Your task to perform on an android device: Show me popular videos on Youtube Image 0: 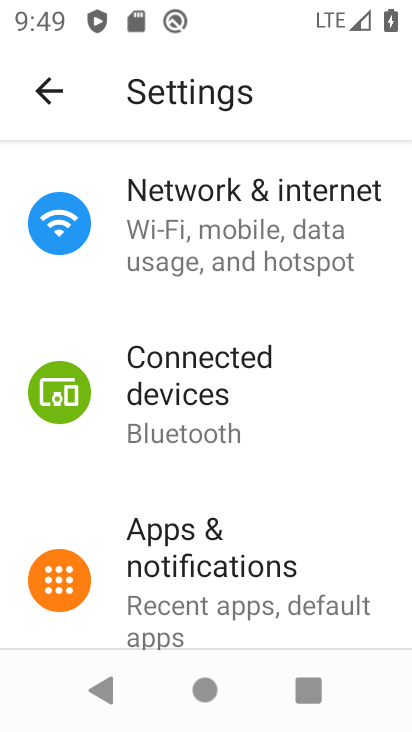
Step 0: press home button
Your task to perform on an android device: Show me popular videos on Youtube Image 1: 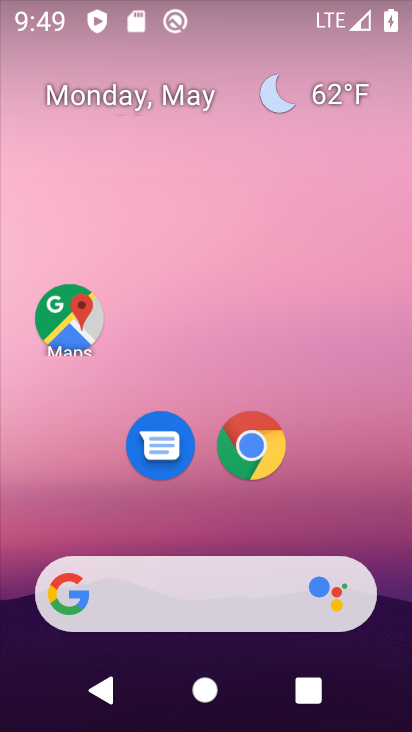
Step 1: drag from (383, 606) to (209, 22)
Your task to perform on an android device: Show me popular videos on Youtube Image 2: 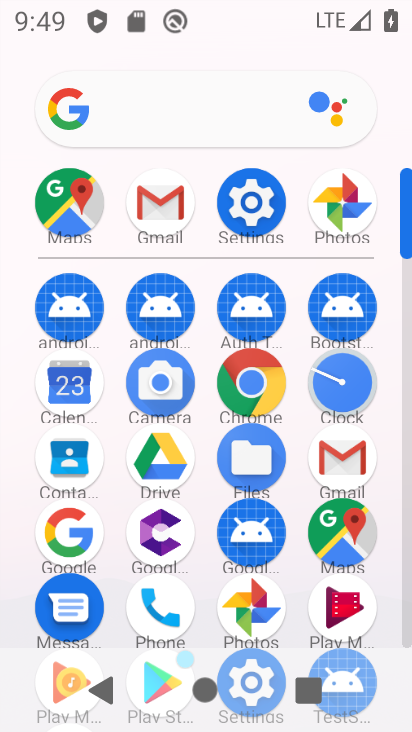
Step 2: drag from (287, 602) to (278, 227)
Your task to perform on an android device: Show me popular videos on Youtube Image 3: 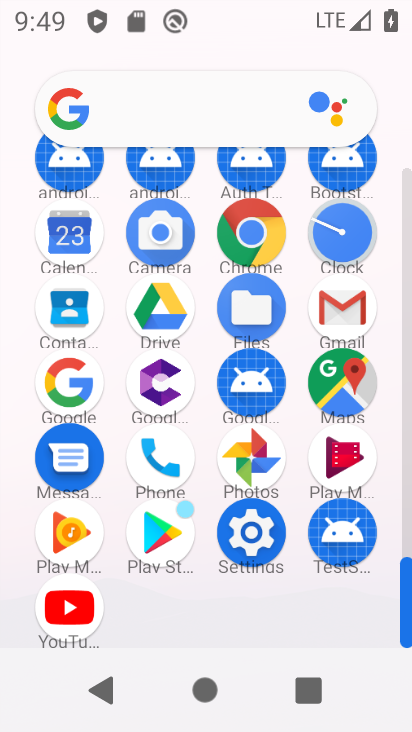
Step 3: click (89, 594)
Your task to perform on an android device: Show me popular videos on Youtube Image 4: 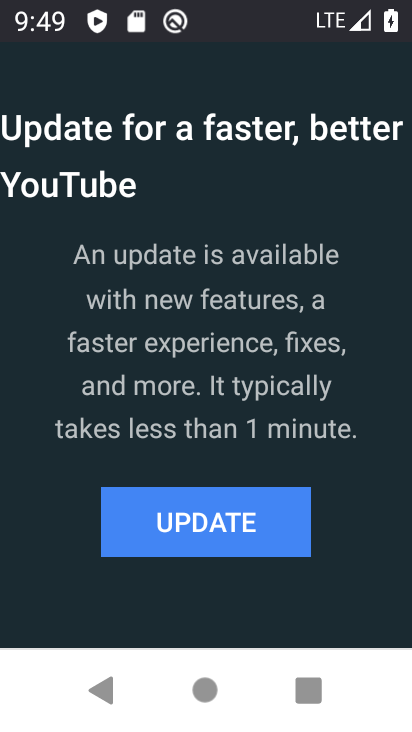
Step 4: click (204, 491)
Your task to perform on an android device: Show me popular videos on Youtube Image 5: 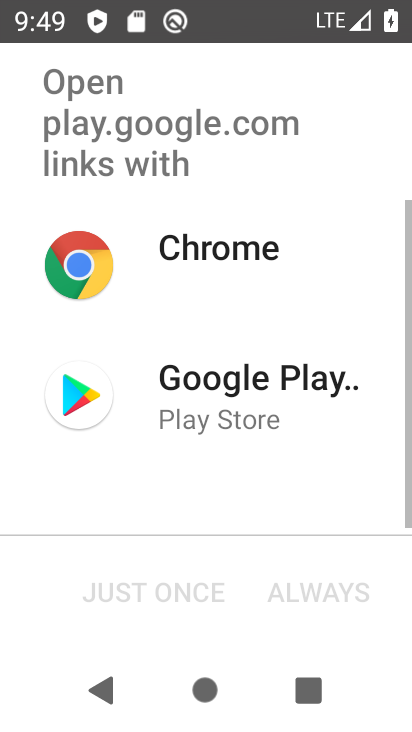
Step 5: click (223, 379)
Your task to perform on an android device: Show me popular videos on Youtube Image 6: 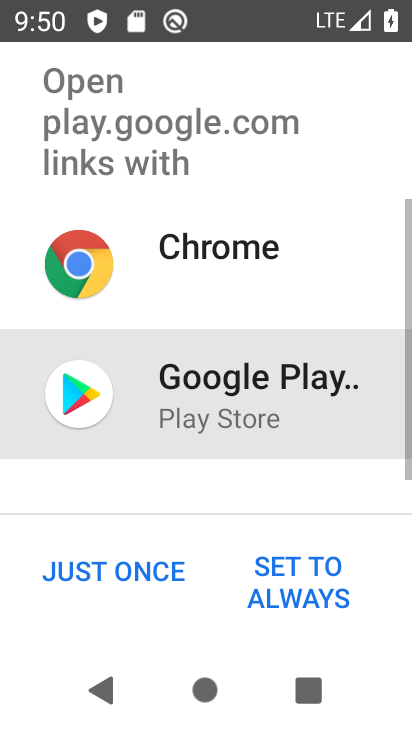
Step 6: click (96, 584)
Your task to perform on an android device: Show me popular videos on Youtube Image 7: 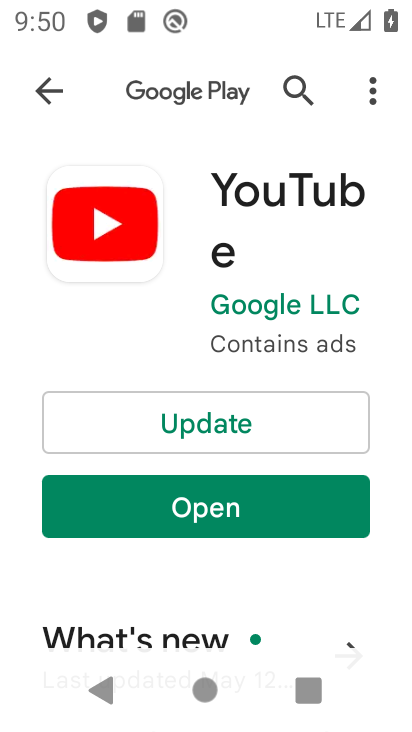
Step 7: click (258, 417)
Your task to perform on an android device: Show me popular videos on Youtube Image 8: 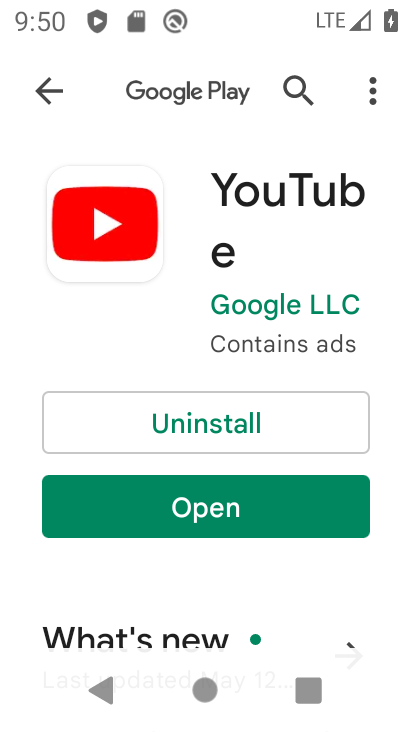
Step 8: click (214, 510)
Your task to perform on an android device: Show me popular videos on Youtube Image 9: 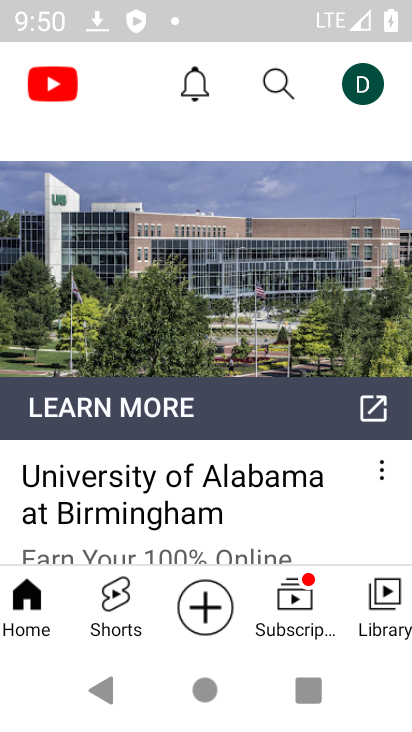
Step 9: task complete